Your task to perform on an android device: make emails show in primary in the gmail app Image 0: 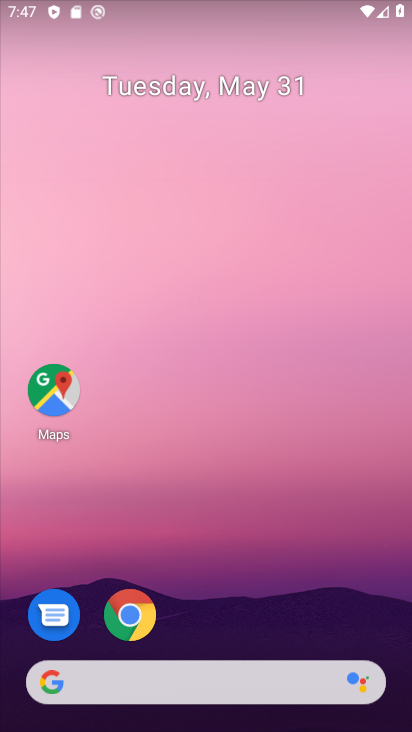
Step 0: drag from (204, 624) to (265, 5)
Your task to perform on an android device: make emails show in primary in the gmail app Image 1: 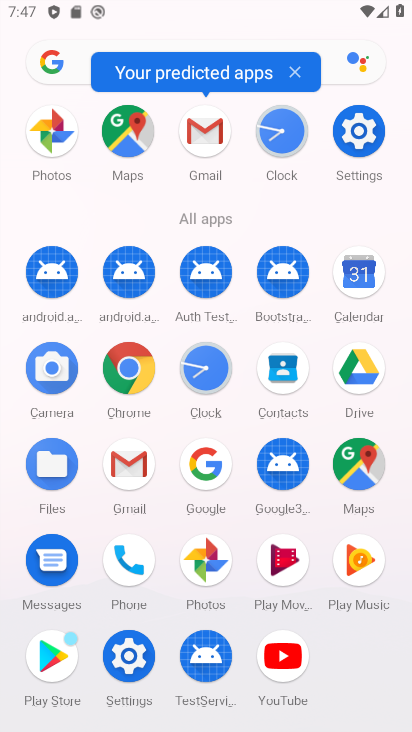
Step 1: click (127, 471)
Your task to perform on an android device: make emails show in primary in the gmail app Image 2: 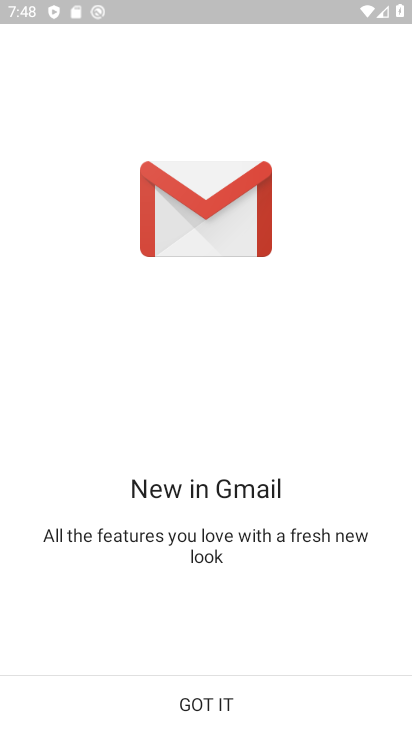
Step 2: click (169, 697)
Your task to perform on an android device: make emails show in primary in the gmail app Image 3: 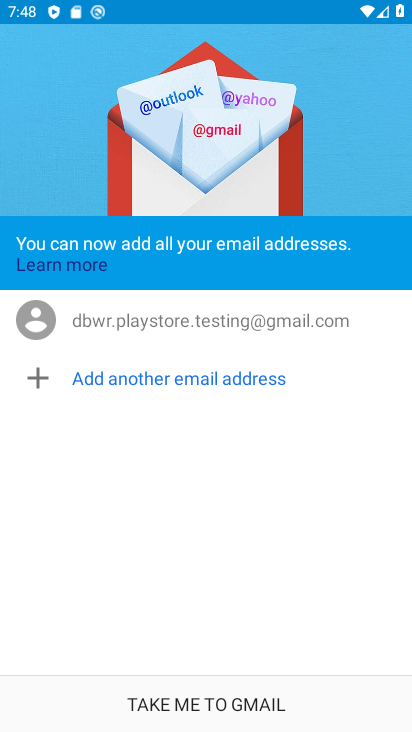
Step 3: click (167, 691)
Your task to perform on an android device: make emails show in primary in the gmail app Image 4: 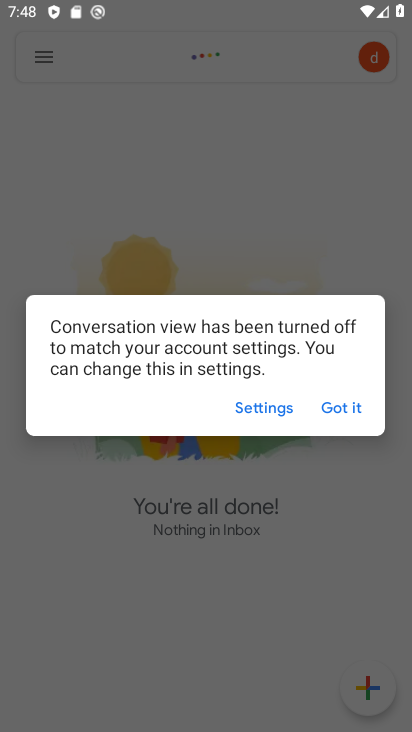
Step 4: click (335, 405)
Your task to perform on an android device: make emails show in primary in the gmail app Image 5: 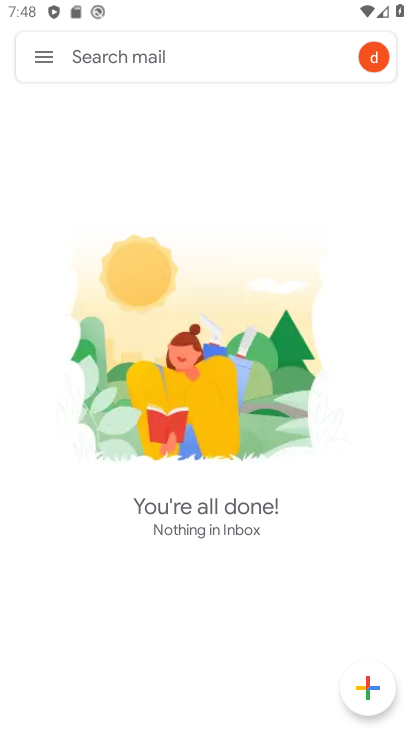
Step 5: click (39, 52)
Your task to perform on an android device: make emails show in primary in the gmail app Image 6: 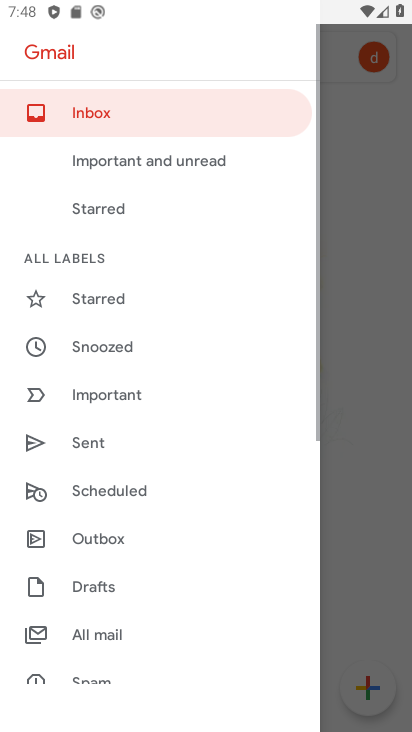
Step 6: drag from (133, 633) to (161, 77)
Your task to perform on an android device: make emails show in primary in the gmail app Image 7: 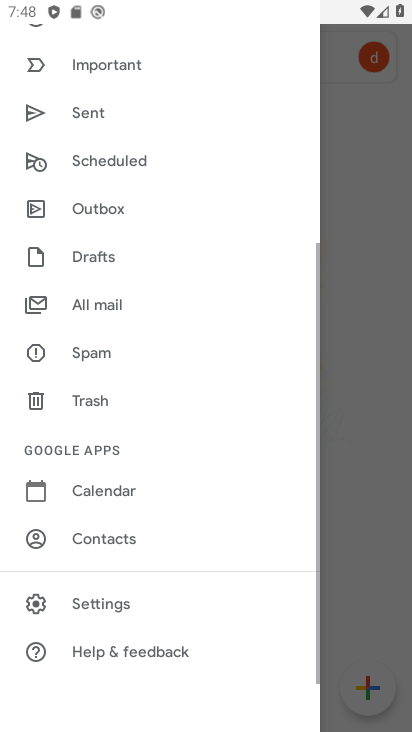
Step 7: click (151, 599)
Your task to perform on an android device: make emails show in primary in the gmail app Image 8: 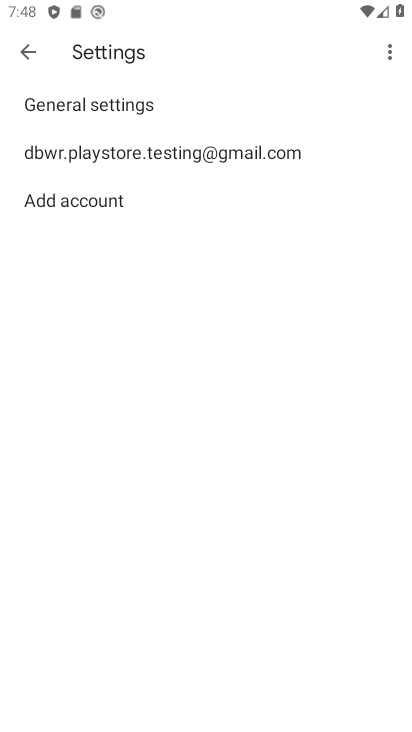
Step 8: click (171, 144)
Your task to perform on an android device: make emails show in primary in the gmail app Image 9: 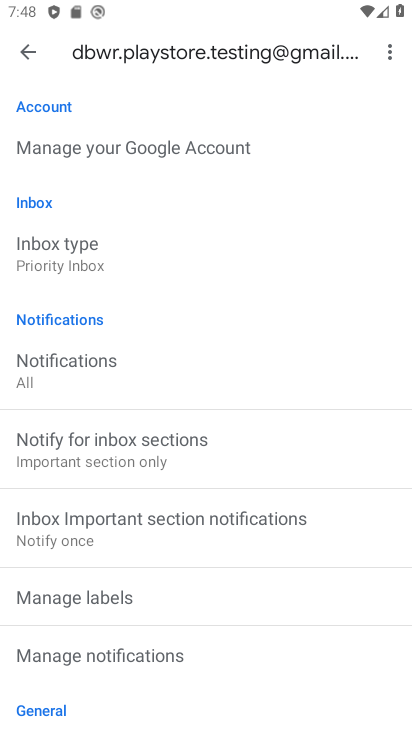
Step 9: click (23, 267)
Your task to perform on an android device: make emails show in primary in the gmail app Image 10: 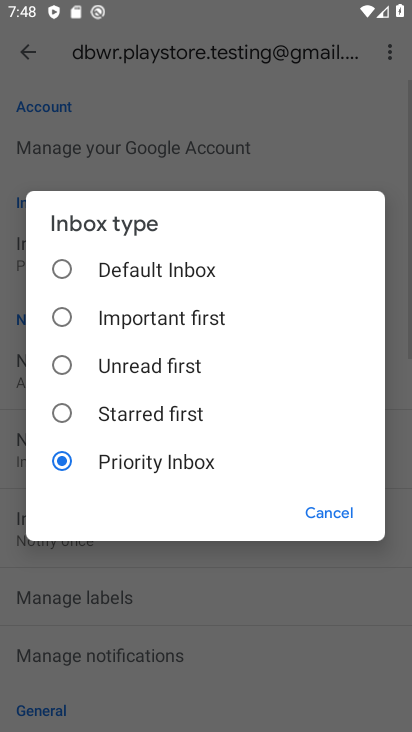
Step 10: click (140, 266)
Your task to perform on an android device: make emails show in primary in the gmail app Image 11: 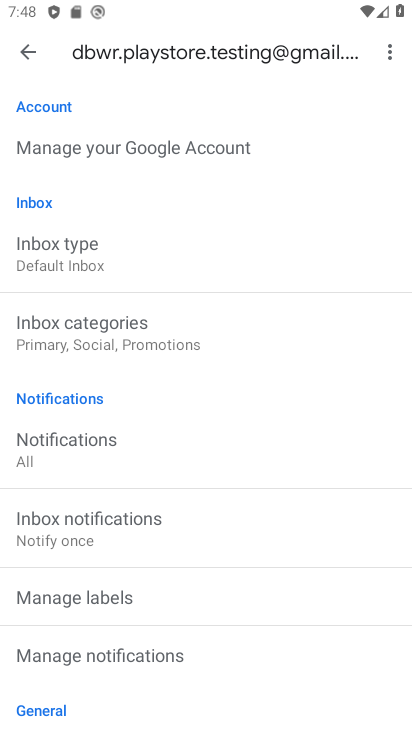
Step 11: task complete